Your task to perform on an android device: change the upload size in google photos Image 0: 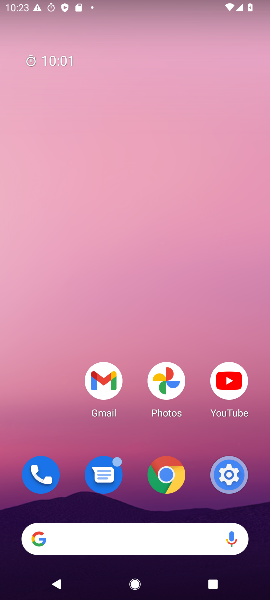
Step 0: click (167, 366)
Your task to perform on an android device: change the upload size in google photos Image 1: 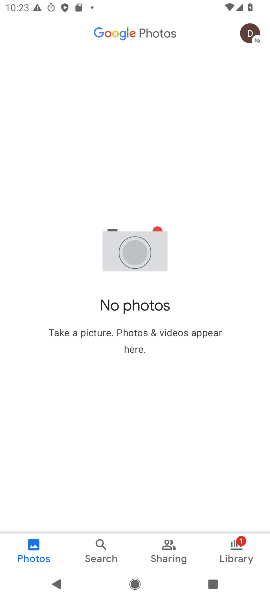
Step 1: click (246, 33)
Your task to perform on an android device: change the upload size in google photos Image 2: 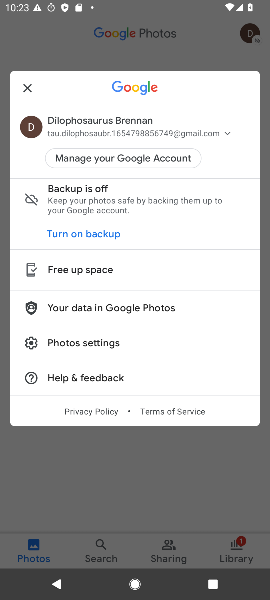
Step 2: click (94, 338)
Your task to perform on an android device: change the upload size in google photos Image 3: 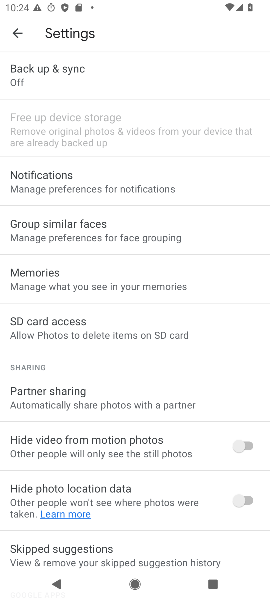
Step 3: click (71, 75)
Your task to perform on an android device: change the upload size in google photos Image 4: 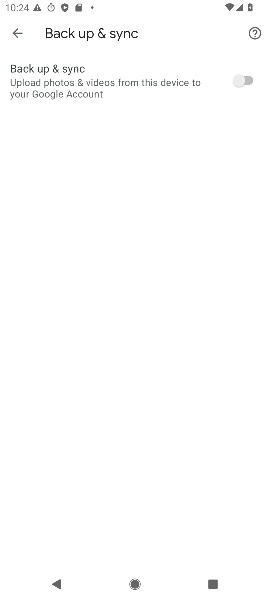
Step 4: click (258, 73)
Your task to perform on an android device: change the upload size in google photos Image 5: 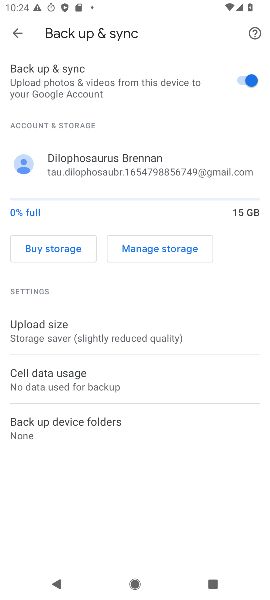
Step 5: click (60, 336)
Your task to perform on an android device: change the upload size in google photos Image 6: 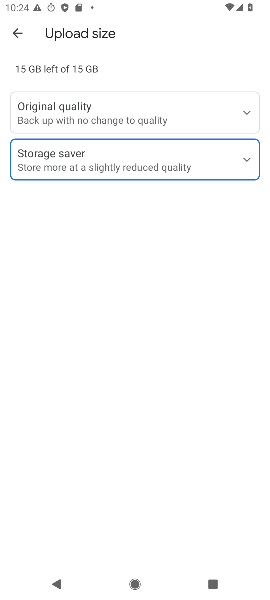
Step 6: click (81, 101)
Your task to perform on an android device: change the upload size in google photos Image 7: 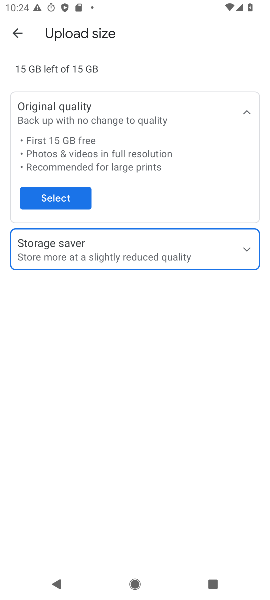
Step 7: click (57, 199)
Your task to perform on an android device: change the upload size in google photos Image 8: 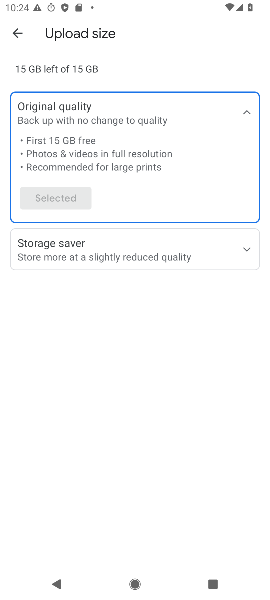
Step 8: task complete